Your task to perform on an android device: What's on my calendar tomorrow? Image 0: 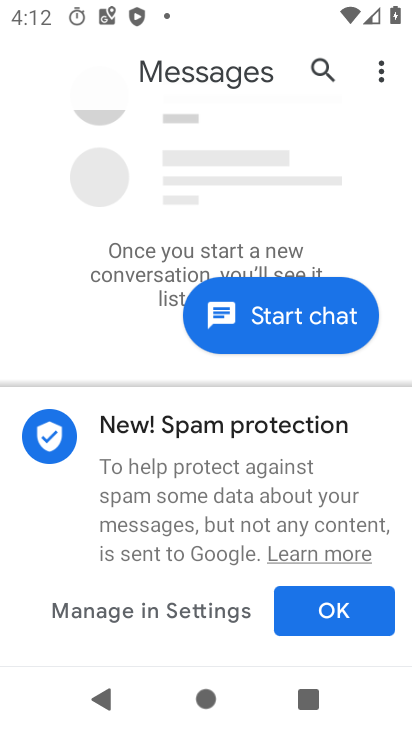
Step 0: press back button
Your task to perform on an android device: What's on my calendar tomorrow? Image 1: 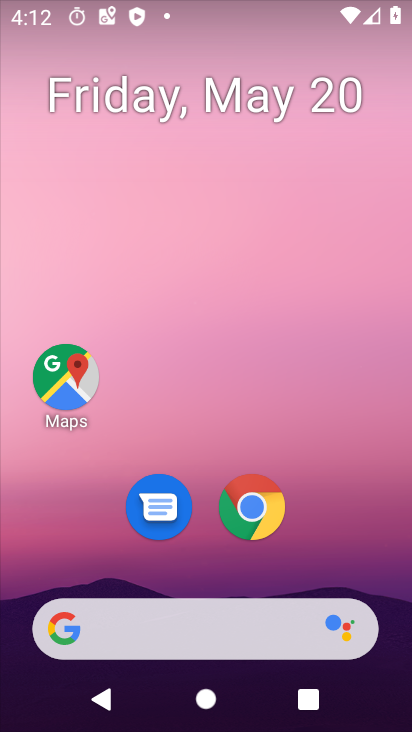
Step 1: drag from (321, 566) to (215, 68)
Your task to perform on an android device: What's on my calendar tomorrow? Image 2: 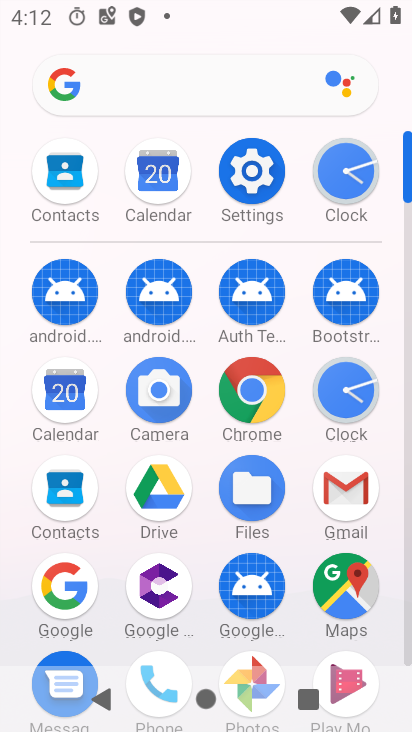
Step 2: click (64, 386)
Your task to perform on an android device: What's on my calendar tomorrow? Image 3: 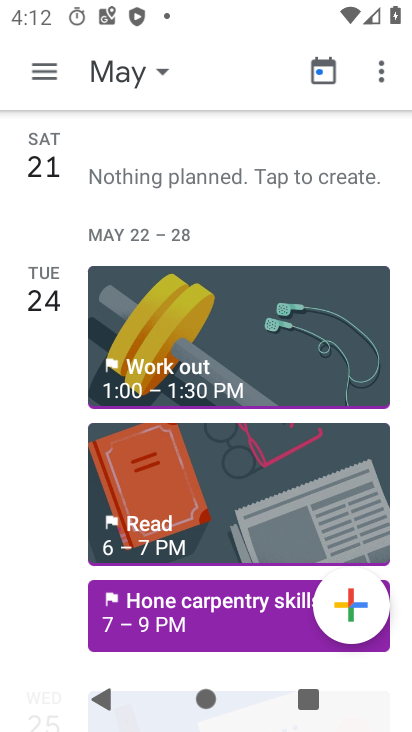
Step 3: click (324, 66)
Your task to perform on an android device: What's on my calendar tomorrow? Image 4: 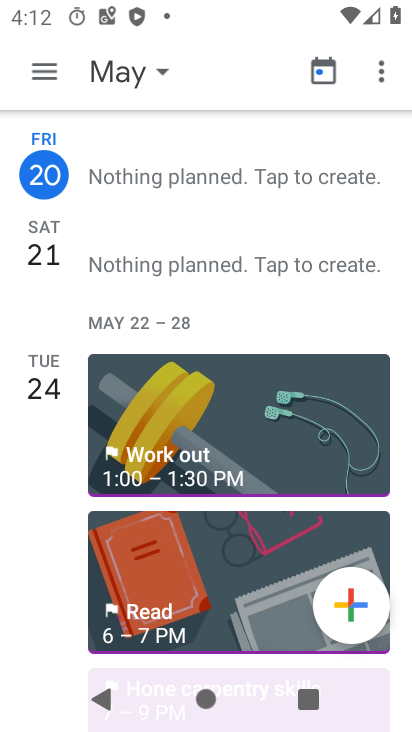
Step 4: click (168, 274)
Your task to perform on an android device: What's on my calendar tomorrow? Image 5: 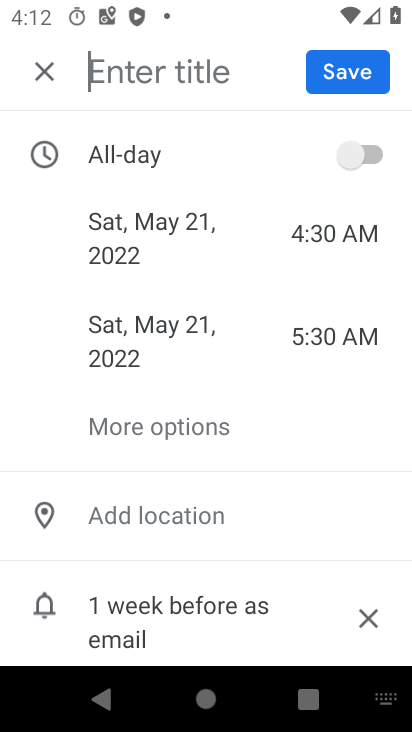
Step 5: task complete